Your task to perform on an android device: Go to calendar. Show me events next week Image 0: 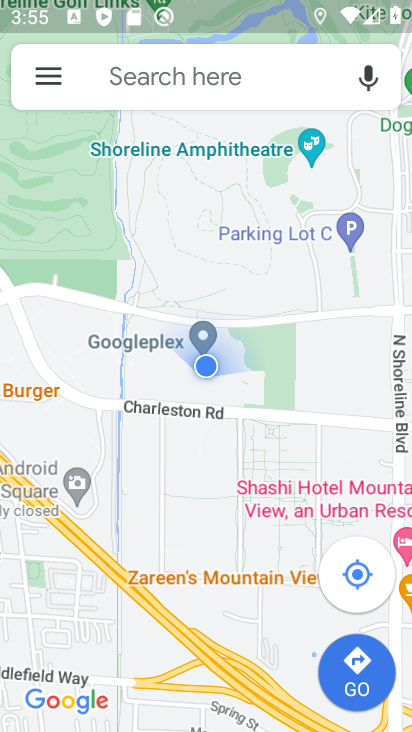
Step 0: press home button
Your task to perform on an android device: Go to calendar. Show me events next week Image 1: 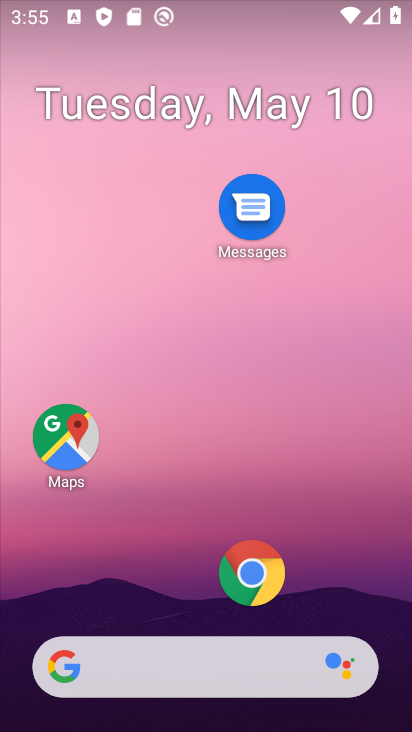
Step 1: drag from (183, 597) to (182, 206)
Your task to perform on an android device: Go to calendar. Show me events next week Image 2: 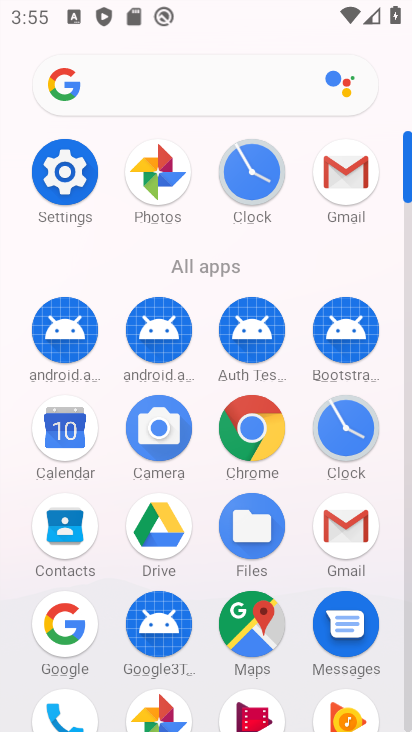
Step 2: click (67, 430)
Your task to perform on an android device: Go to calendar. Show me events next week Image 3: 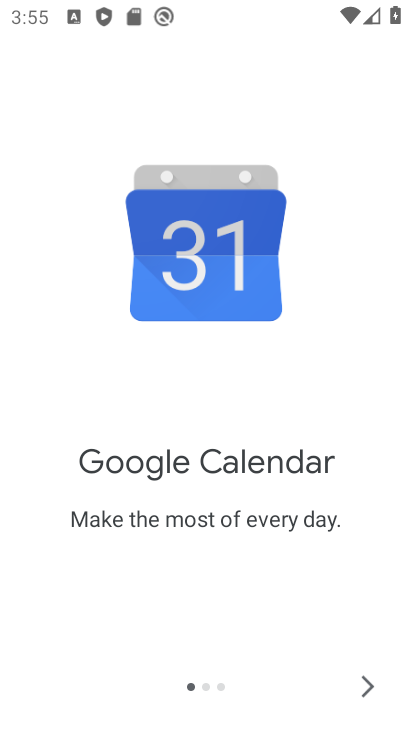
Step 3: click (362, 684)
Your task to perform on an android device: Go to calendar. Show me events next week Image 4: 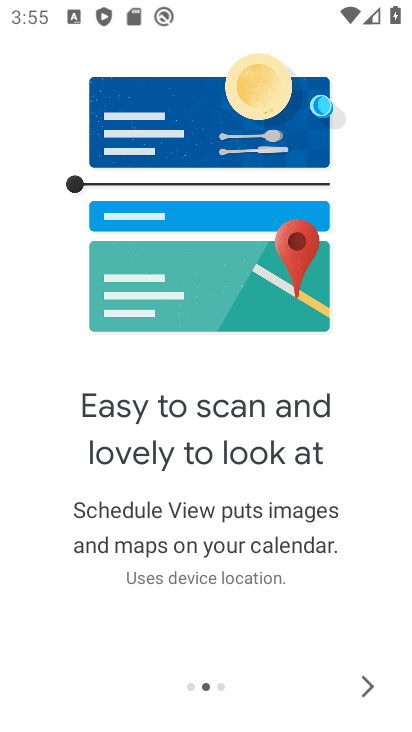
Step 4: click (362, 684)
Your task to perform on an android device: Go to calendar. Show me events next week Image 5: 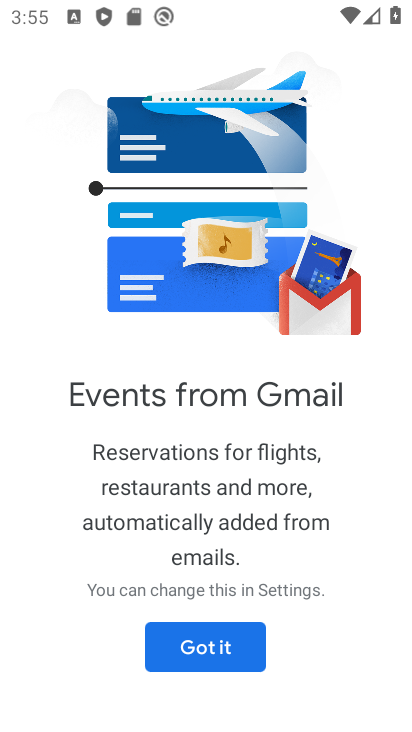
Step 5: click (362, 684)
Your task to perform on an android device: Go to calendar. Show me events next week Image 6: 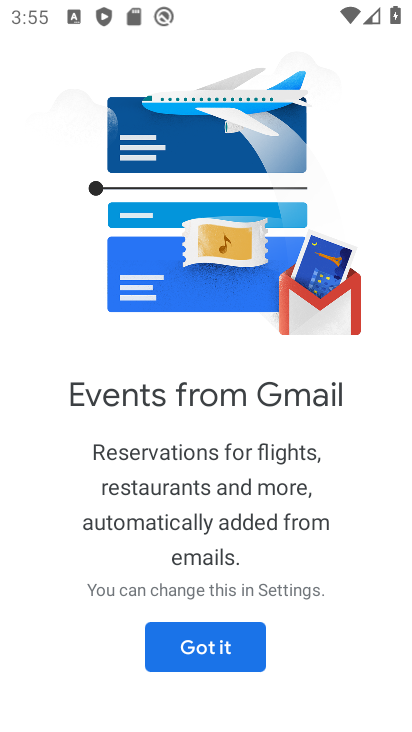
Step 6: click (211, 642)
Your task to perform on an android device: Go to calendar. Show me events next week Image 7: 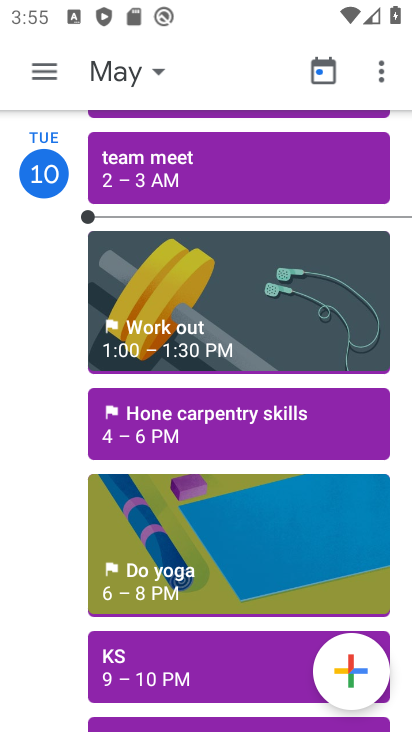
Step 7: click (156, 76)
Your task to perform on an android device: Go to calendar. Show me events next week Image 8: 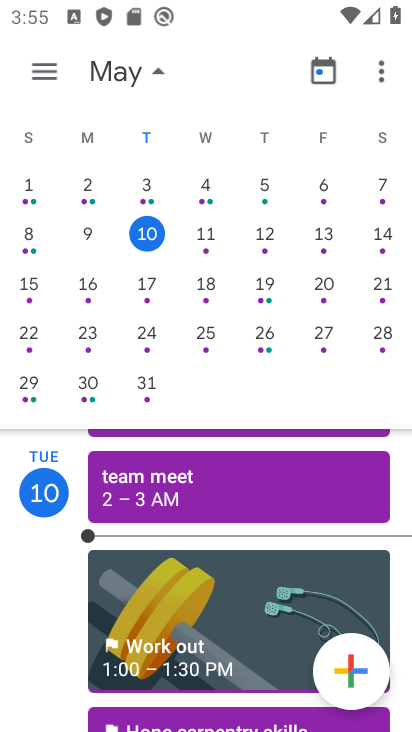
Step 8: click (95, 288)
Your task to perform on an android device: Go to calendar. Show me events next week Image 9: 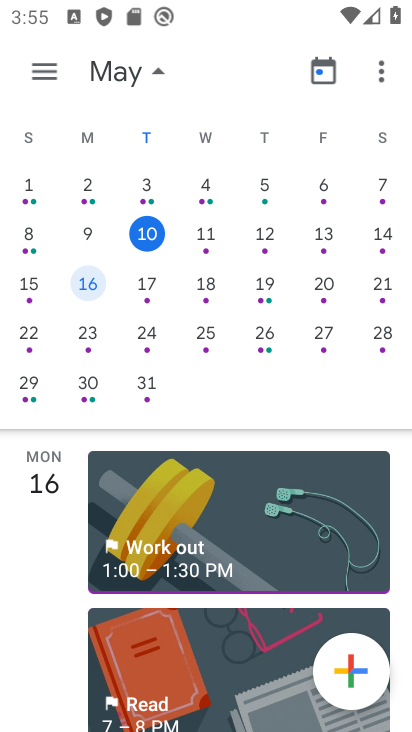
Step 9: task complete